Your task to perform on an android device: open app "Pluto TV - Live TV and Movies" Image 0: 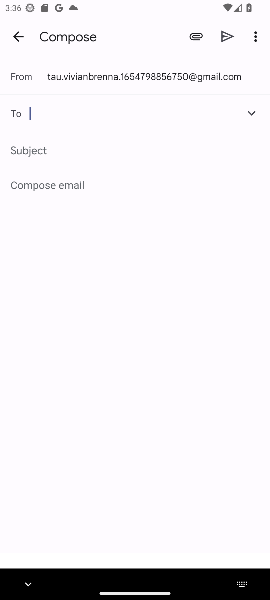
Step 0: press home button
Your task to perform on an android device: open app "Pluto TV - Live TV and Movies" Image 1: 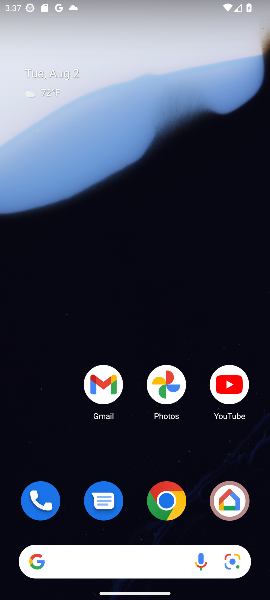
Step 1: drag from (124, 442) to (140, 63)
Your task to perform on an android device: open app "Pluto TV - Live TV and Movies" Image 2: 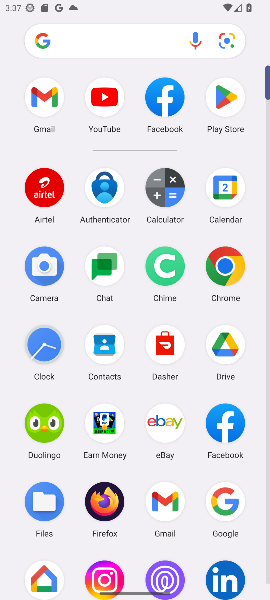
Step 2: click (220, 106)
Your task to perform on an android device: open app "Pluto TV - Live TV and Movies" Image 3: 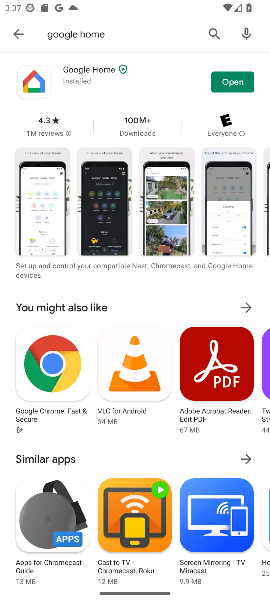
Step 3: click (211, 30)
Your task to perform on an android device: open app "Pluto TV - Live TV and Movies" Image 4: 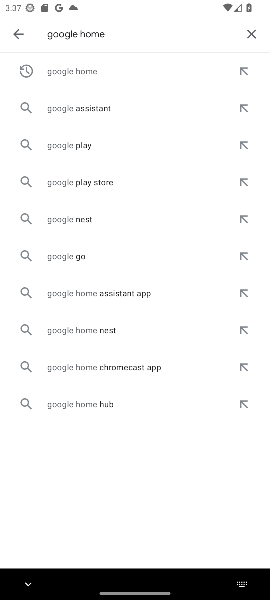
Step 4: click (255, 35)
Your task to perform on an android device: open app "Pluto TV - Live TV and Movies" Image 5: 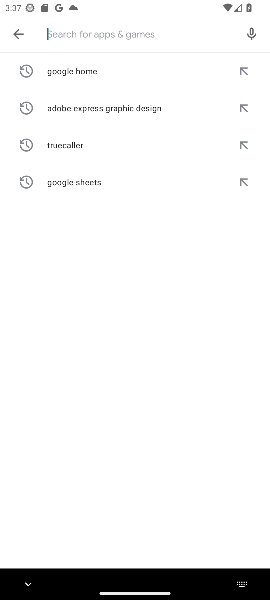
Step 5: type "Pluto TV - Live TV and Movies"
Your task to perform on an android device: open app "Pluto TV - Live TV and Movies" Image 6: 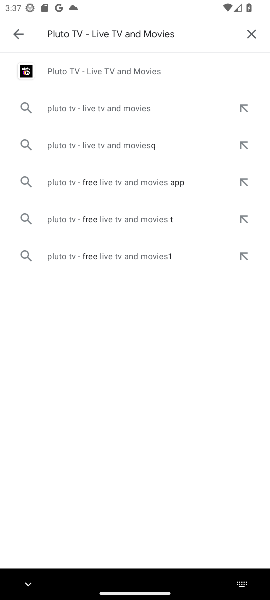
Step 6: click (103, 79)
Your task to perform on an android device: open app "Pluto TV - Live TV and Movies" Image 7: 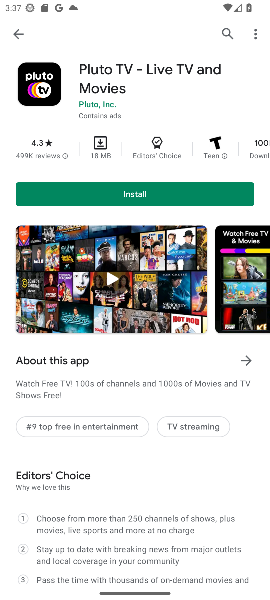
Step 7: task complete